Your task to perform on an android device: Go to internet settings Image 0: 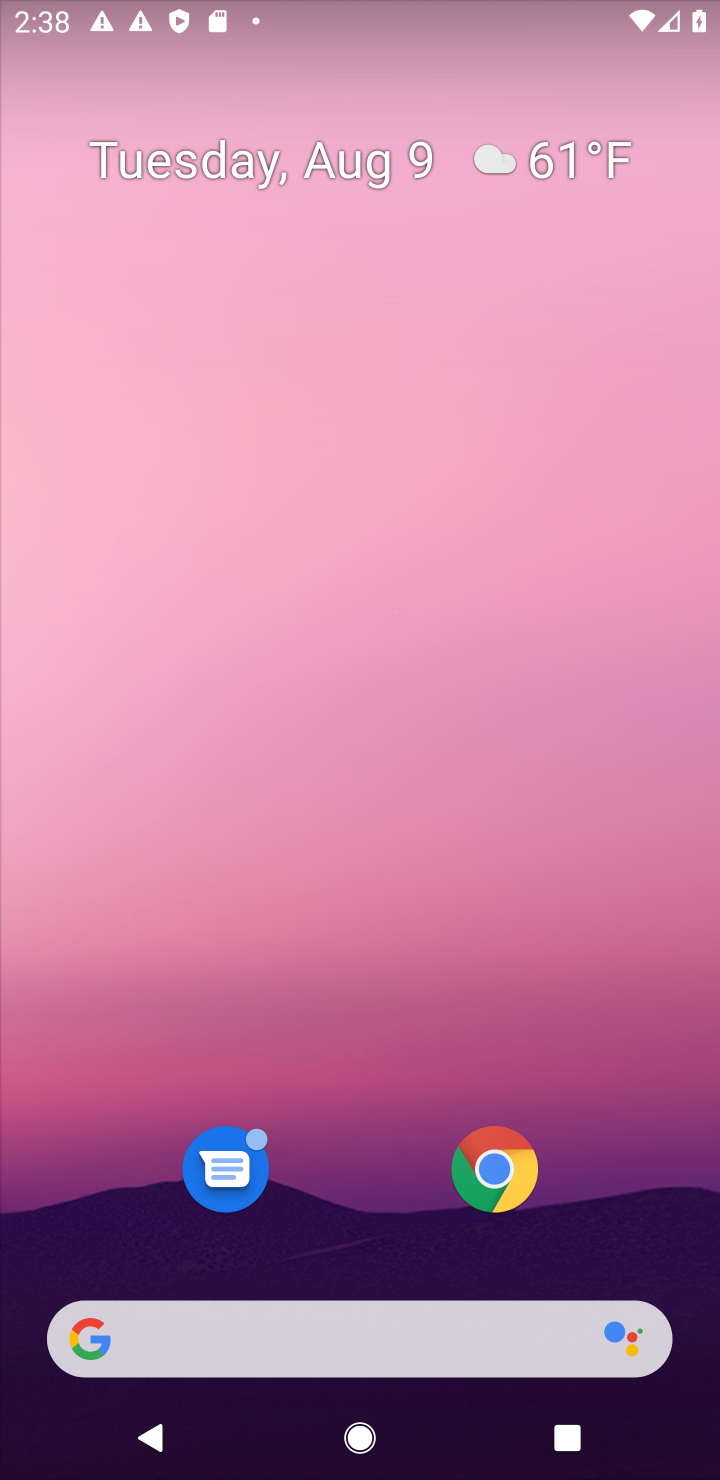
Step 0: drag from (610, 1133) to (530, 594)
Your task to perform on an android device: Go to internet settings Image 1: 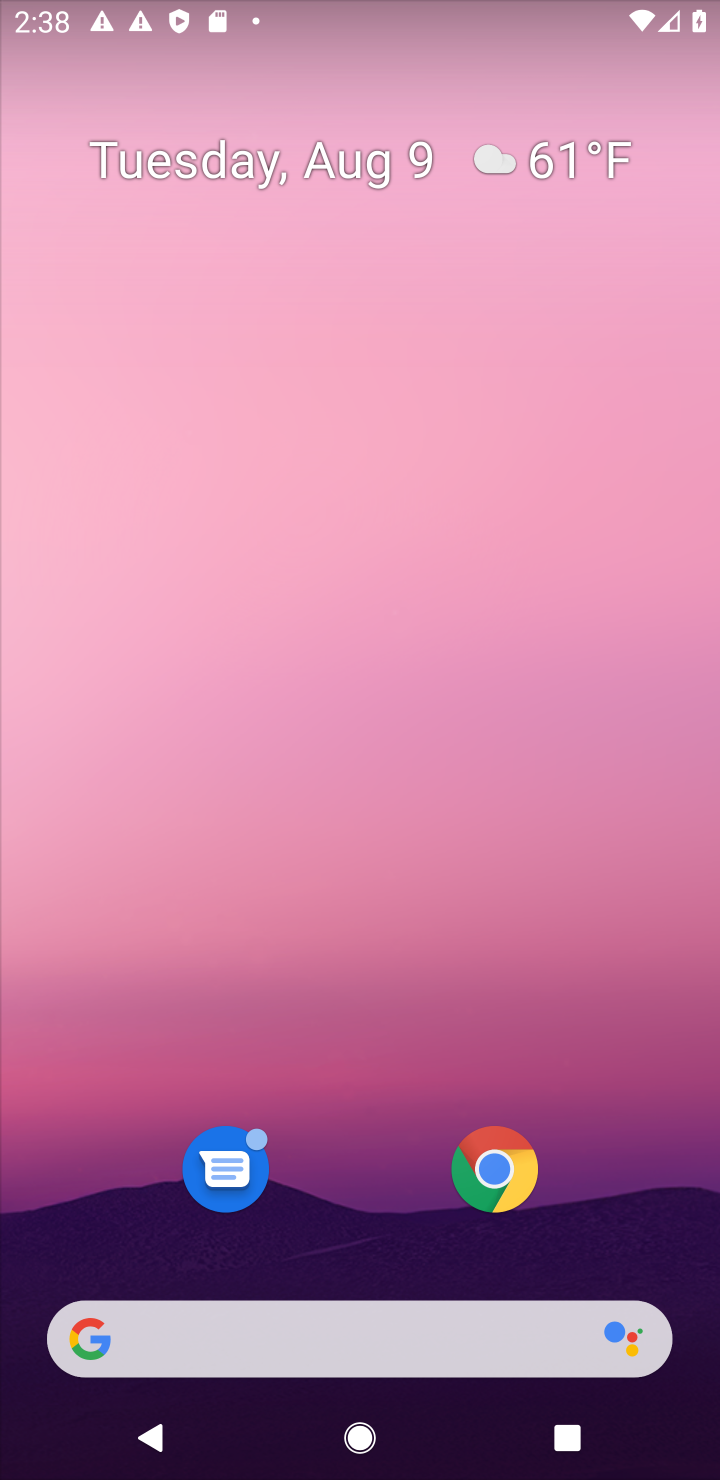
Step 1: drag from (605, 1259) to (541, 400)
Your task to perform on an android device: Go to internet settings Image 2: 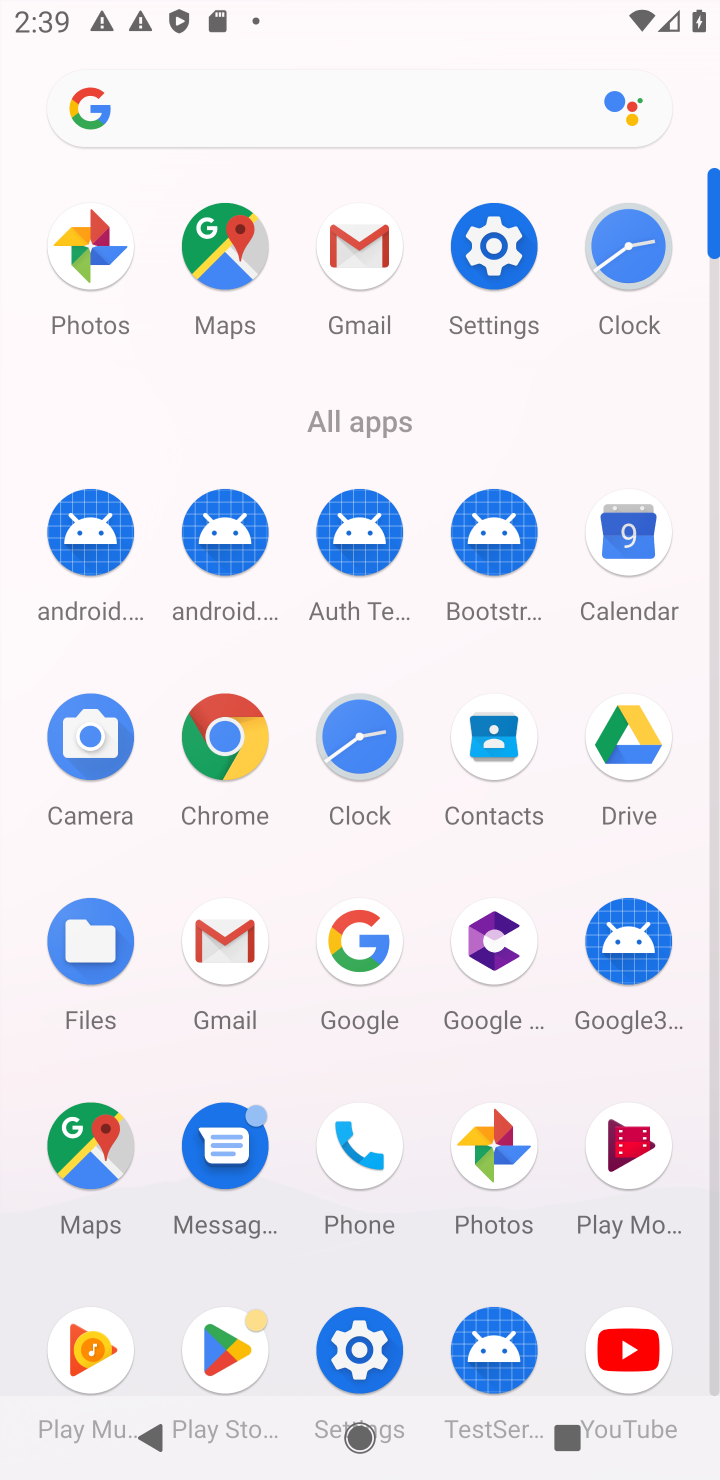
Step 2: click (353, 1348)
Your task to perform on an android device: Go to internet settings Image 3: 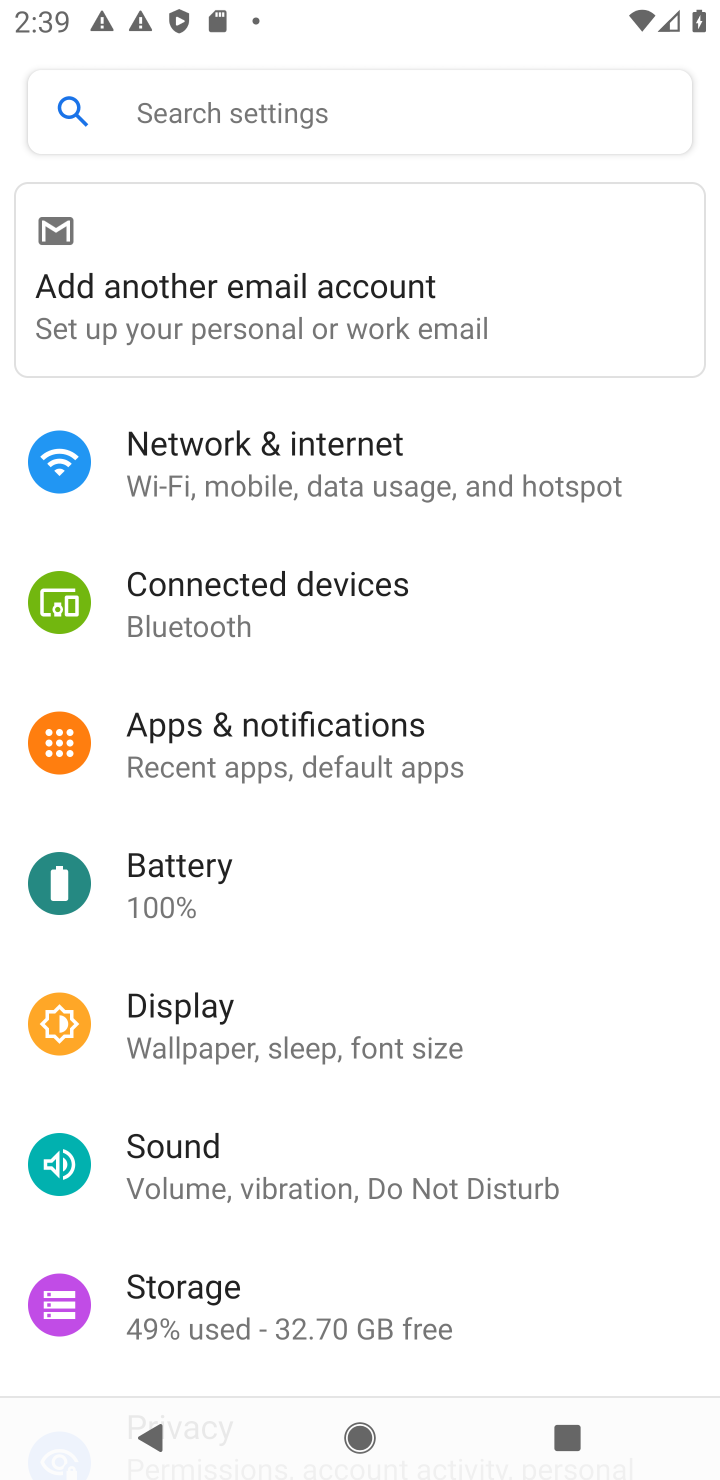
Step 3: click (264, 461)
Your task to perform on an android device: Go to internet settings Image 4: 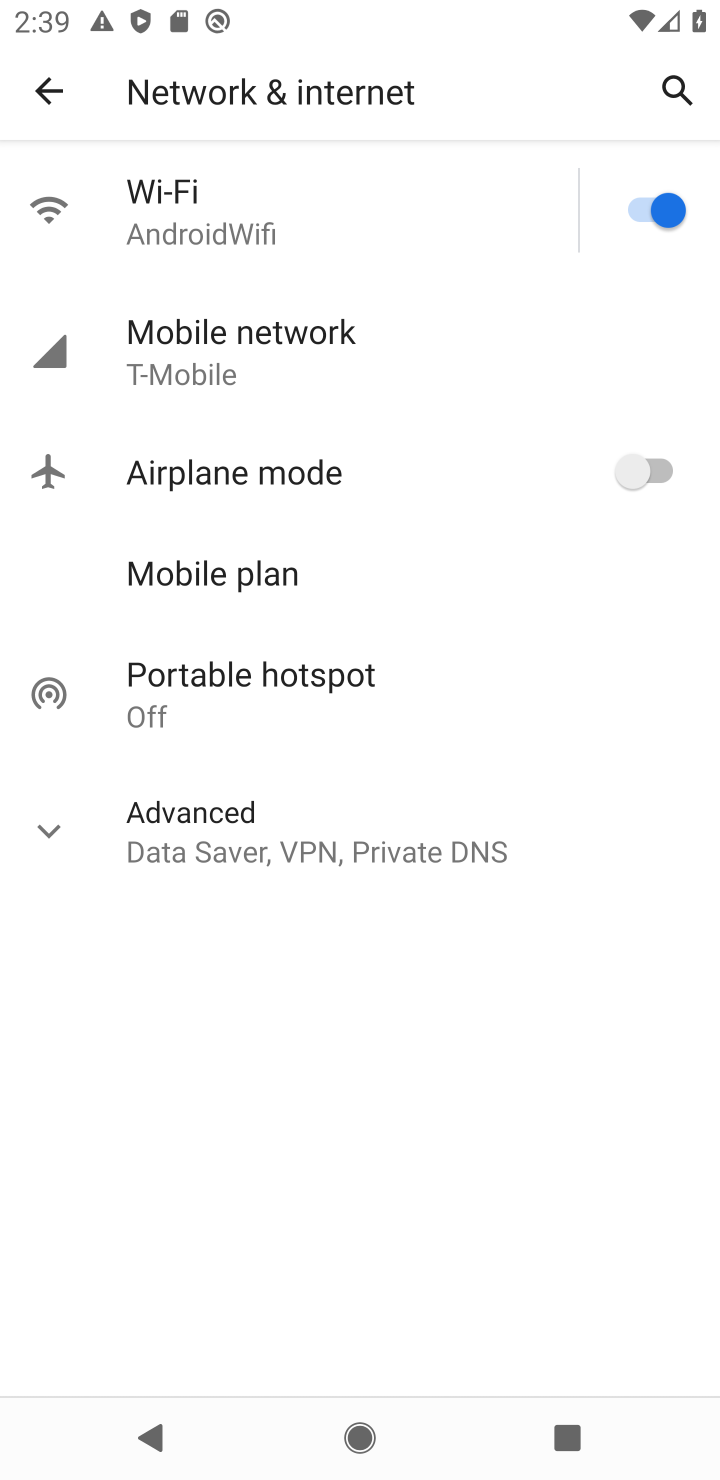
Step 4: task complete